Your task to perform on an android device: Open internet settings Image 0: 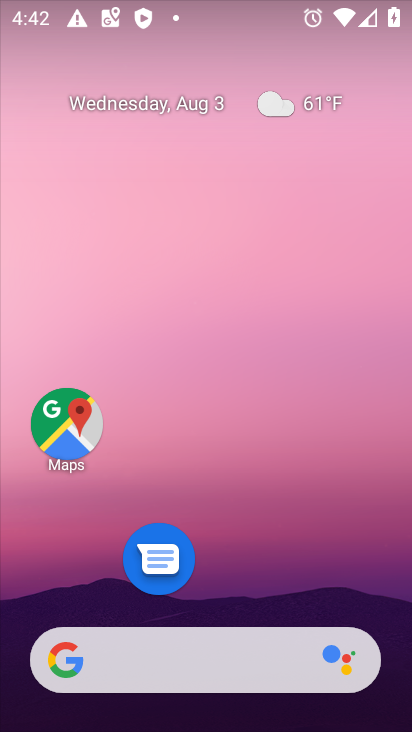
Step 0: drag from (195, 608) to (159, 330)
Your task to perform on an android device: Open internet settings Image 1: 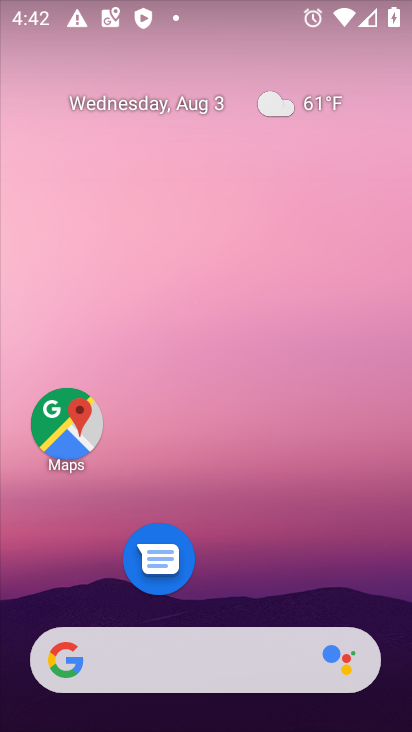
Step 1: drag from (245, 590) to (213, 233)
Your task to perform on an android device: Open internet settings Image 2: 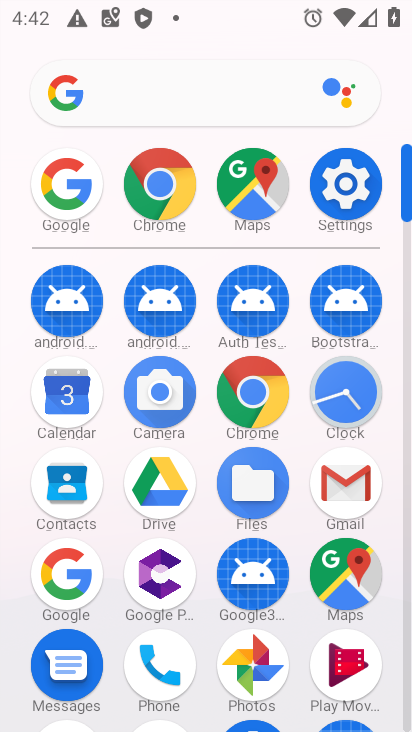
Step 2: click (347, 184)
Your task to perform on an android device: Open internet settings Image 3: 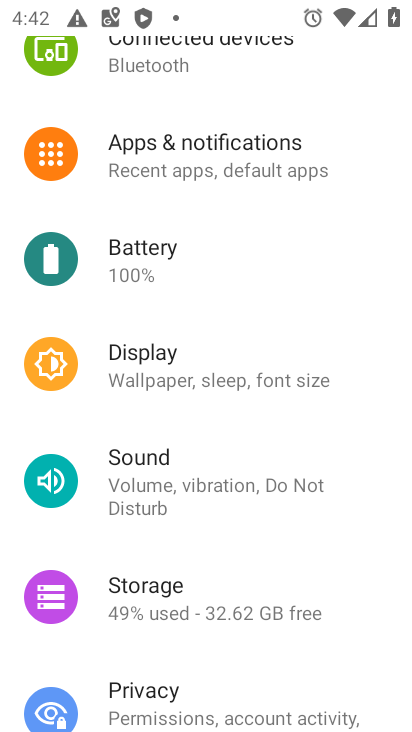
Step 3: drag from (360, 183) to (357, 647)
Your task to perform on an android device: Open internet settings Image 4: 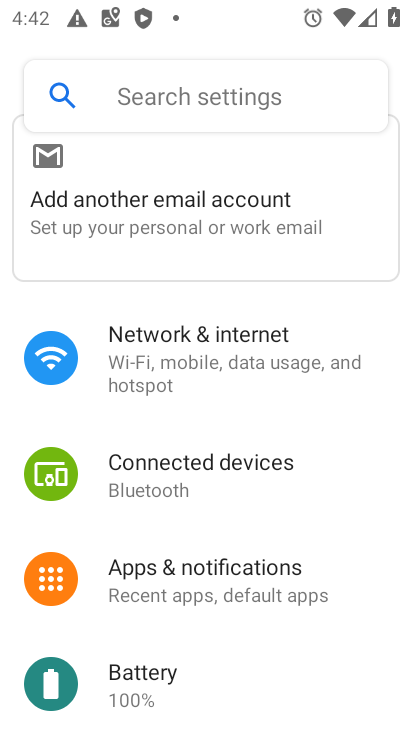
Step 4: drag from (162, 191) to (163, 551)
Your task to perform on an android device: Open internet settings Image 5: 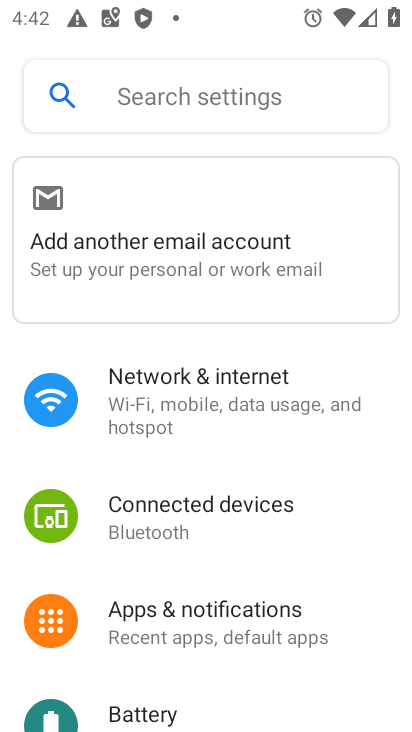
Step 5: click (133, 404)
Your task to perform on an android device: Open internet settings Image 6: 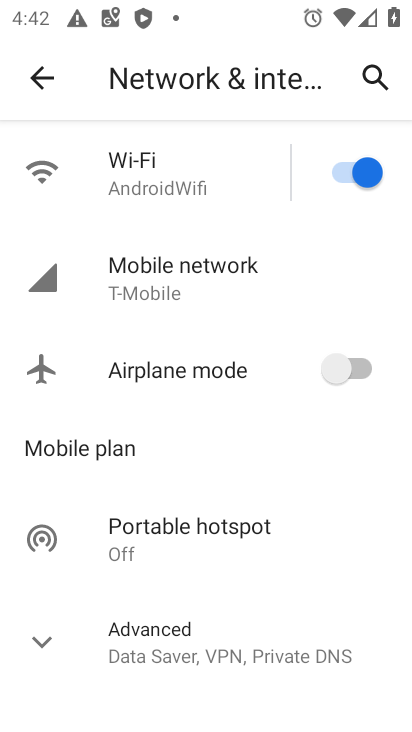
Step 6: click (157, 276)
Your task to perform on an android device: Open internet settings Image 7: 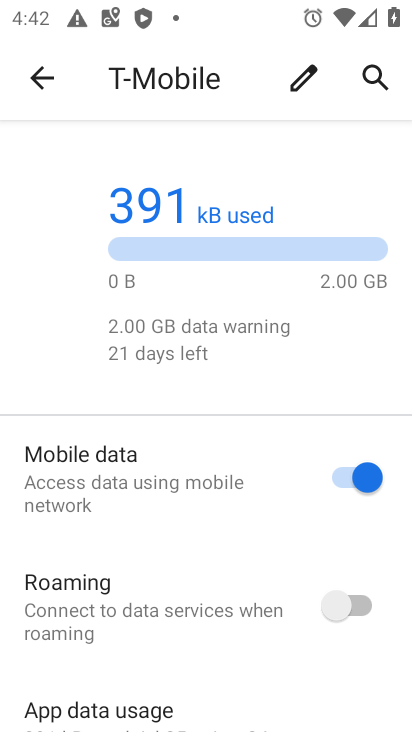
Step 7: task complete